Your task to perform on an android device: Go to notification settings Image 0: 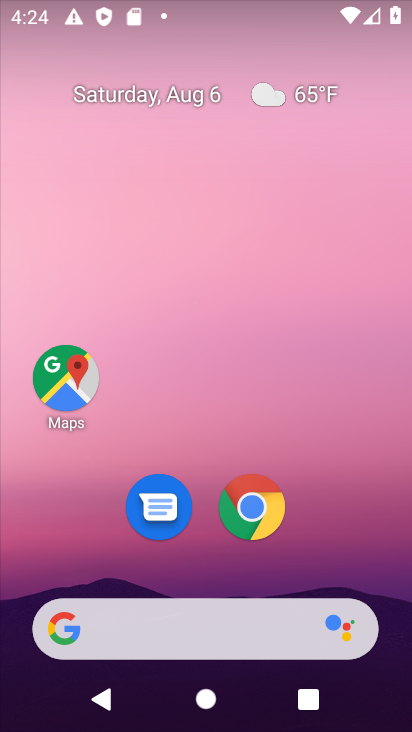
Step 0: drag from (209, 412) to (219, 160)
Your task to perform on an android device: Go to notification settings Image 1: 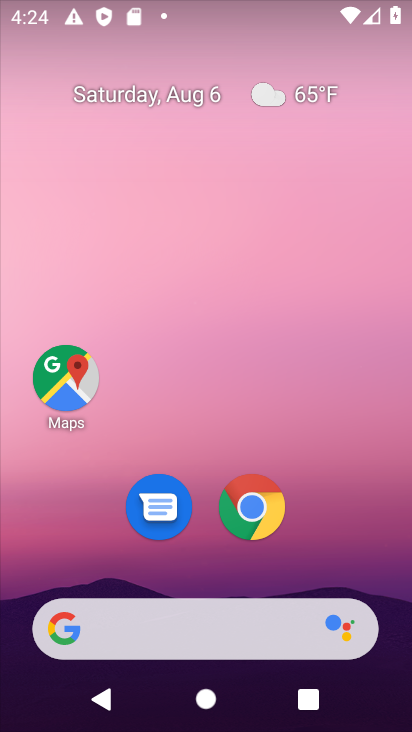
Step 1: drag from (226, 437) to (235, 127)
Your task to perform on an android device: Go to notification settings Image 2: 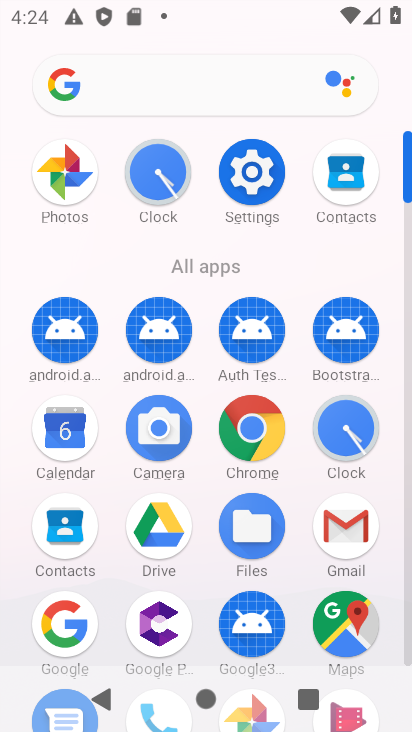
Step 2: click (243, 191)
Your task to perform on an android device: Go to notification settings Image 3: 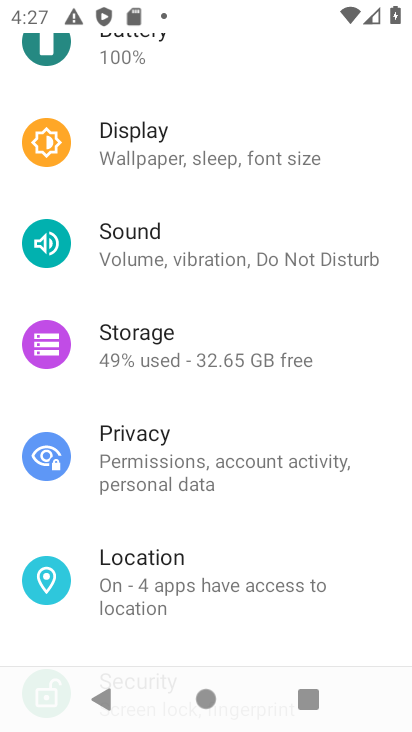
Step 3: task complete